Your task to perform on an android device: Open location settings Image 0: 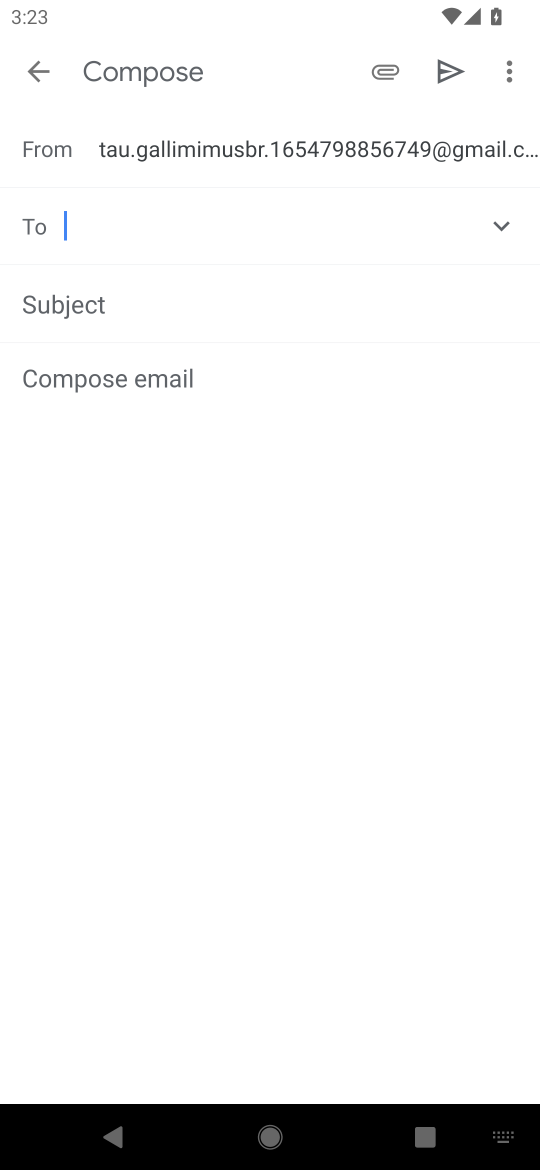
Step 0: press back button
Your task to perform on an android device: Open location settings Image 1: 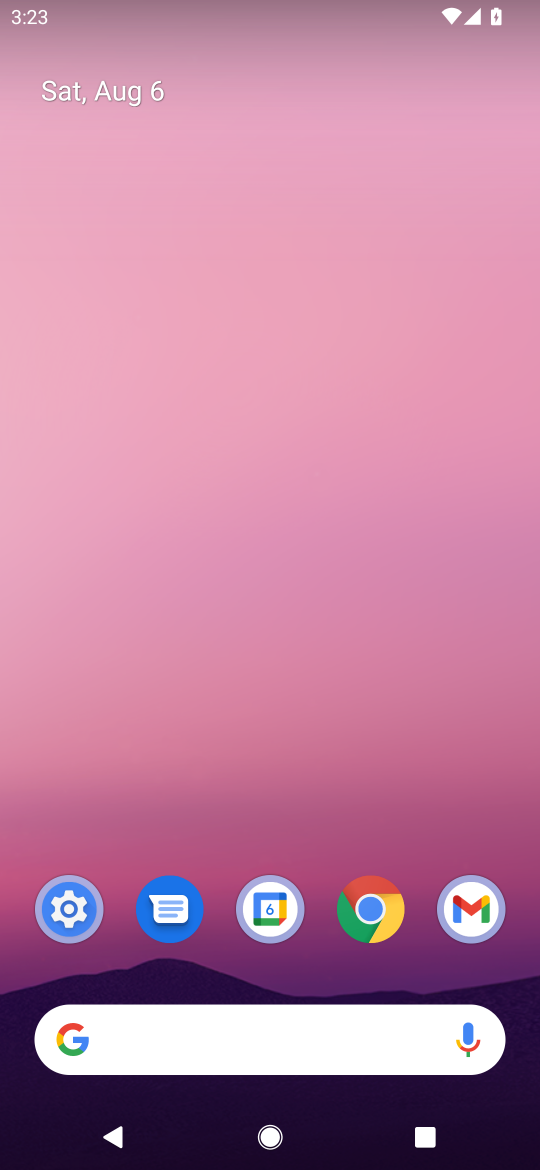
Step 1: drag from (223, 895) to (360, 34)
Your task to perform on an android device: Open location settings Image 2: 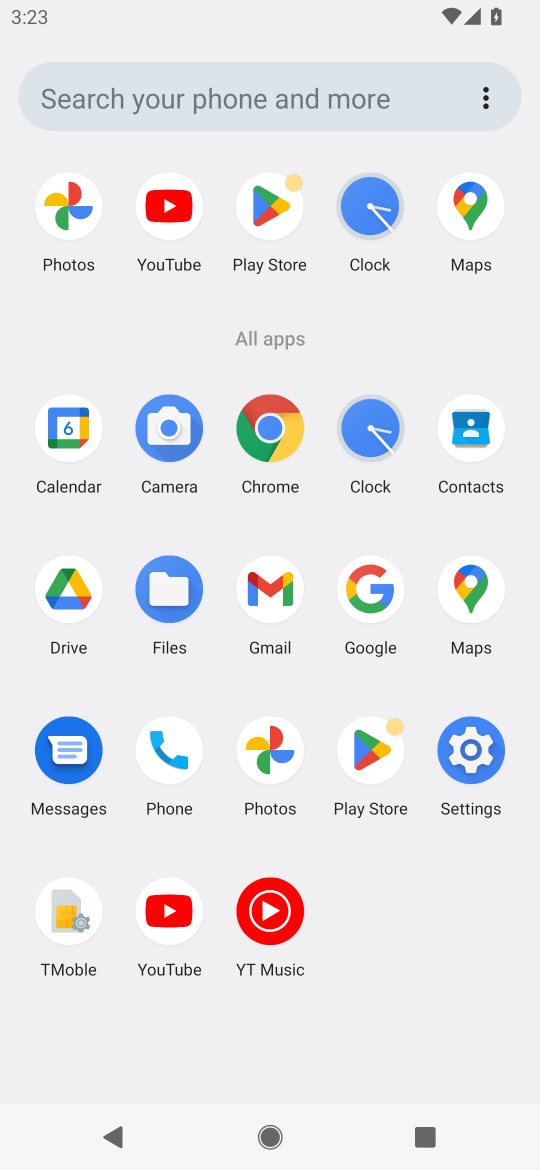
Step 2: click (475, 763)
Your task to perform on an android device: Open location settings Image 3: 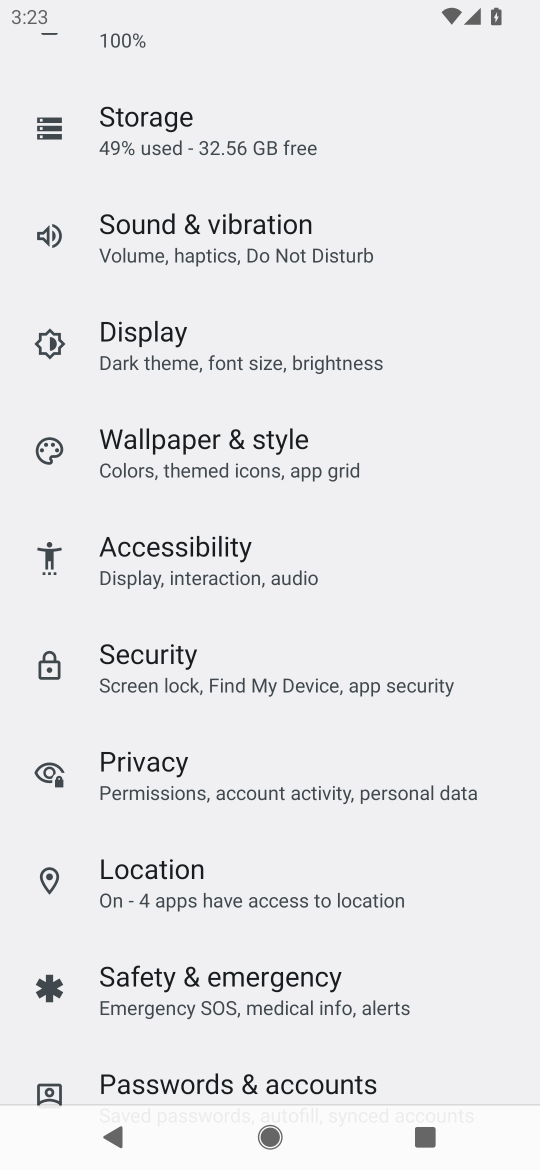
Step 3: click (187, 851)
Your task to perform on an android device: Open location settings Image 4: 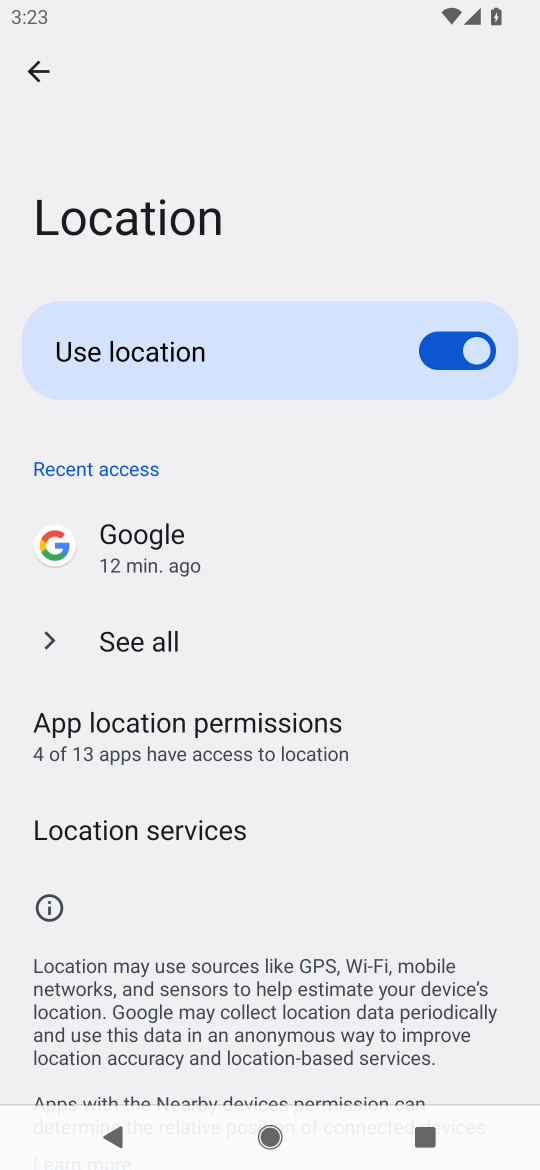
Step 4: task complete